Your task to perform on an android device: turn on location history Image 0: 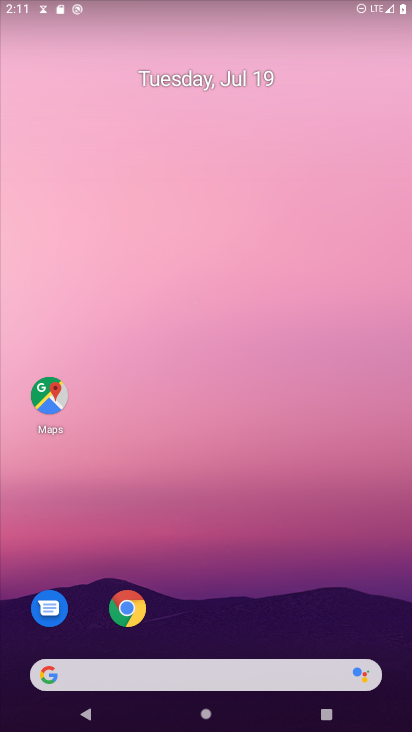
Step 0: drag from (268, 679) to (345, 164)
Your task to perform on an android device: turn on location history Image 1: 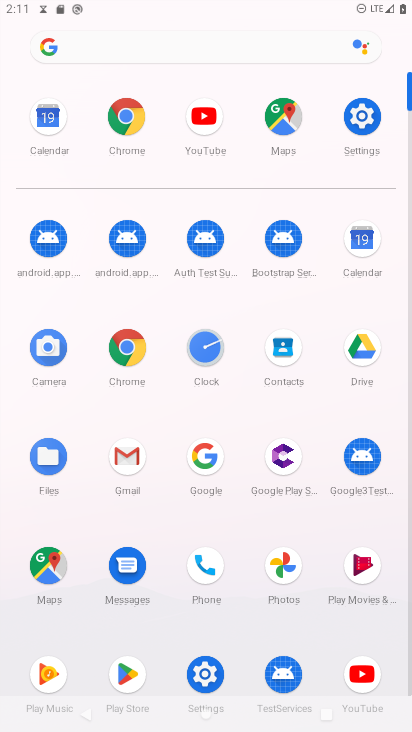
Step 1: click (363, 114)
Your task to perform on an android device: turn on location history Image 2: 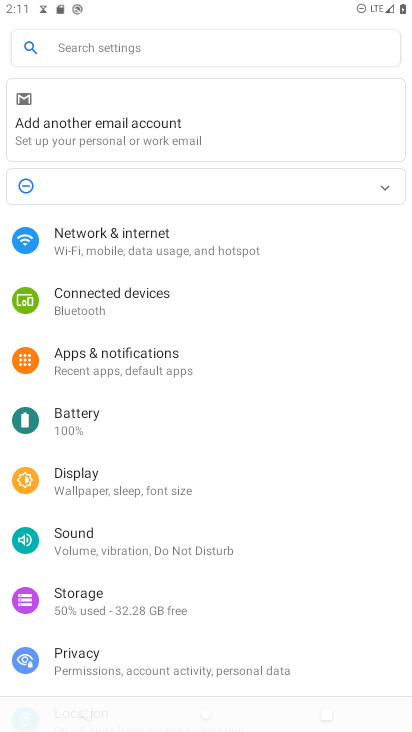
Step 2: drag from (144, 643) to (201, 317)
Your task to perform on an android device: turn on location history Image 3: 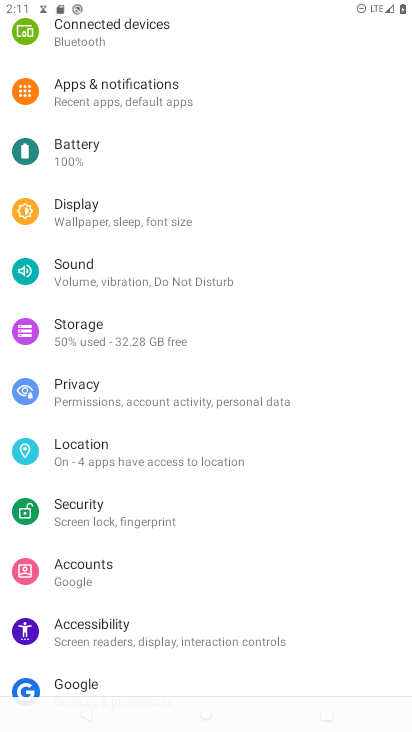
Step 3: click (156, 464)
Your task to perform on an android device: turn on location history Image 4: 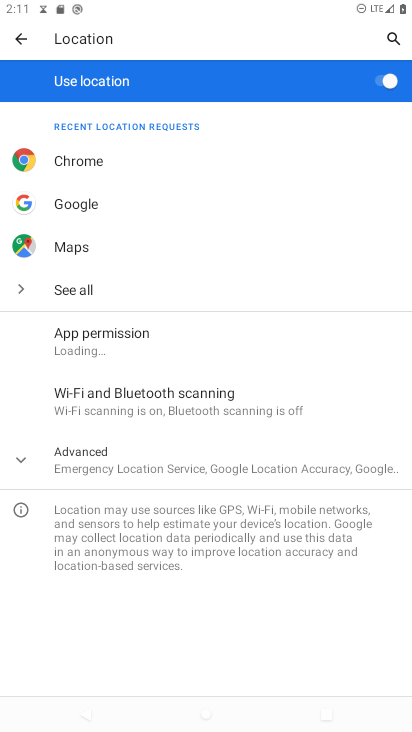
Step 4: click (160, 465)
Your task to perform on an android device: turn on location history Image 5: 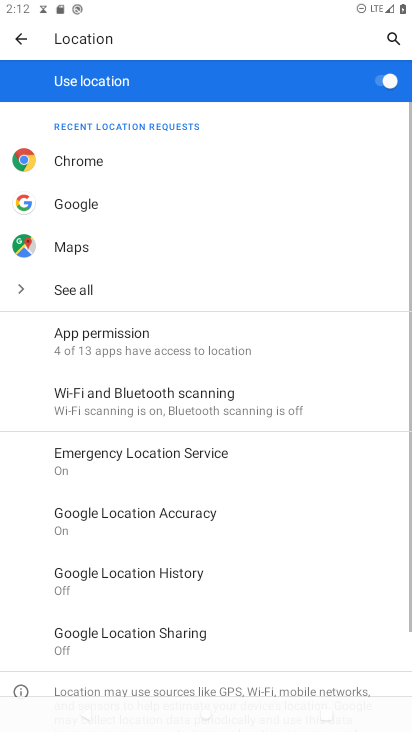
Step 5: click (166, 574)
Your task to perform on an android device: turn on location history Image 6: 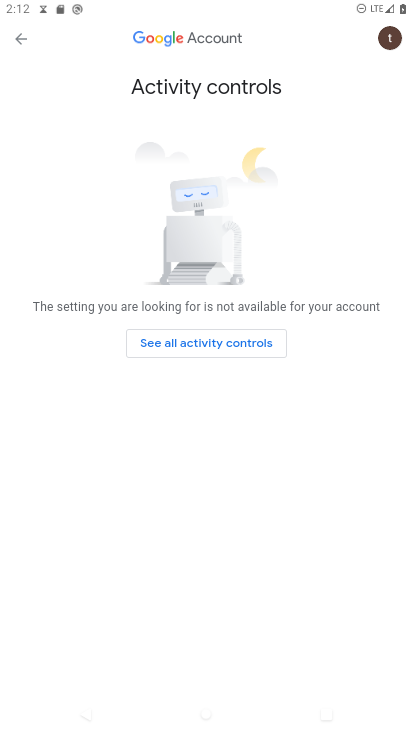
Step 6: click (194, 344)
Your task to perform on an android device: turn on location history Image 7: 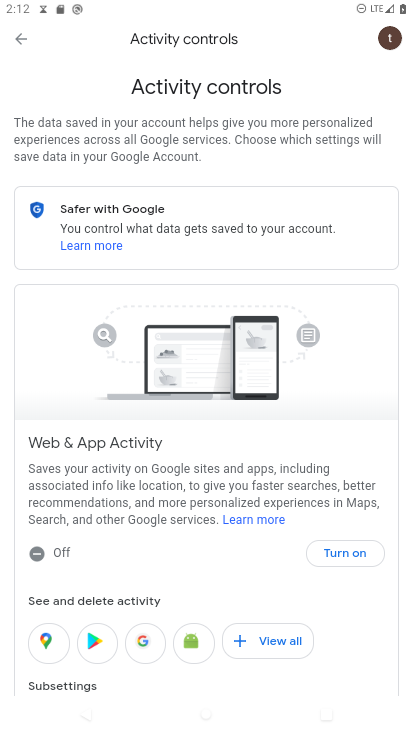
Step 7: click (348, 552)
Your task to perform on an android device: turn on location history Image 8: 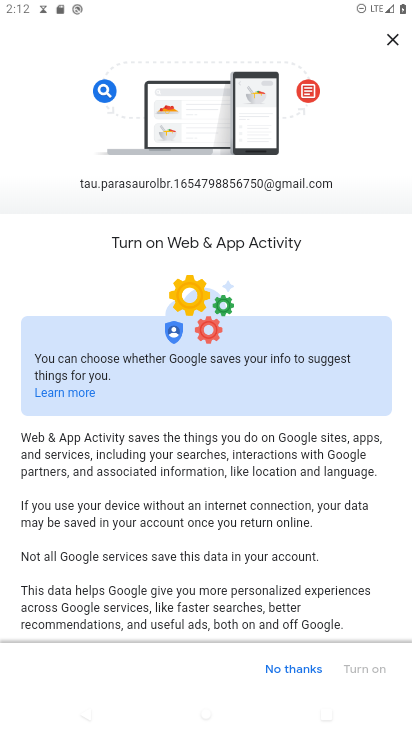
Step 8: drag from (319, 635) to (323, 198)
Your task to perform on an android device: turn on location history Image 9: 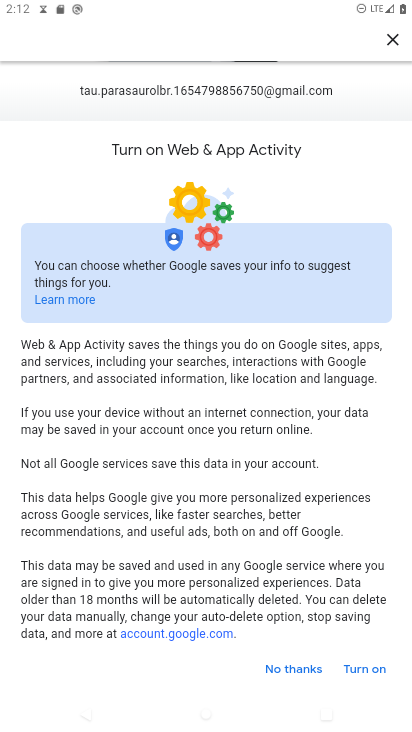
Step 9: click (360, 660)
Your task to perform on an android device: turn on location history Image 10: 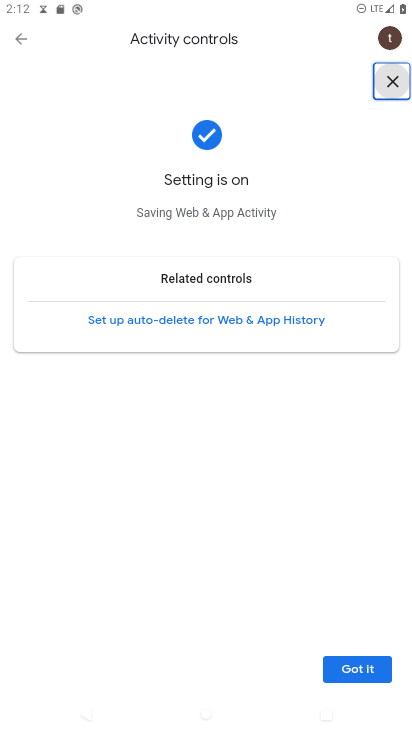
Step 10: task complete